Your task to perform on an android device: turn off airplane mode Image 0: 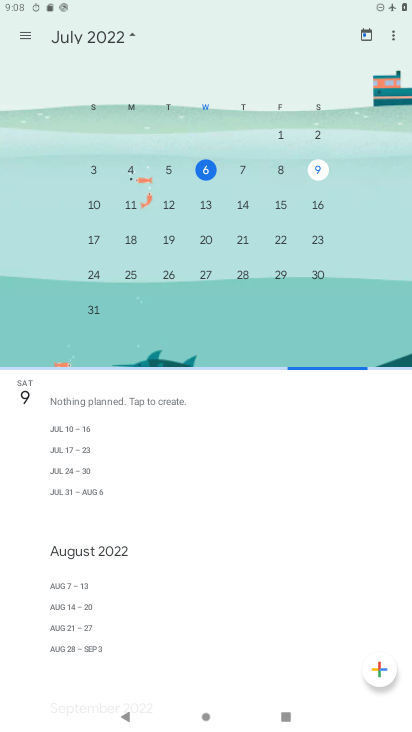
Step 0: press home button
Your task to perform on an android device: turn off airplane mode Image 1: 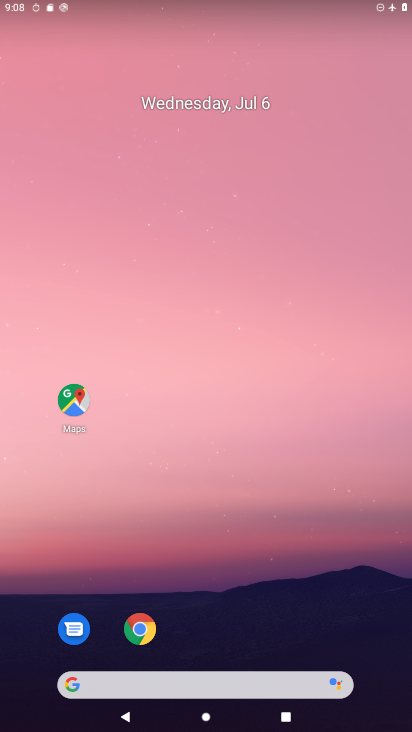
Step 1: drag from (232, 690) to (215, 122)
Your task to perform on an android device: turn off airplane mode Image 2: 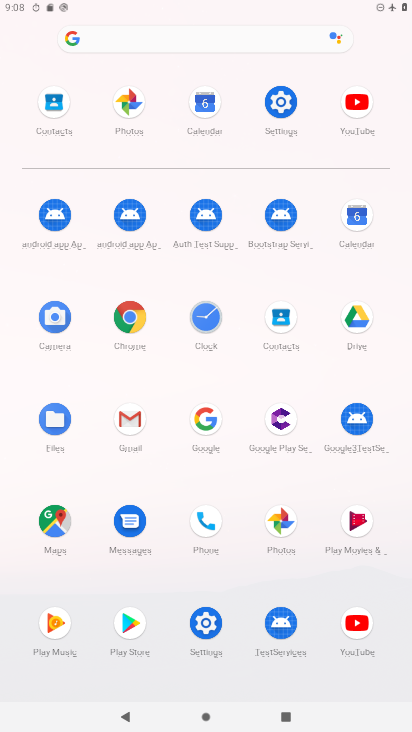
Step 2: click (281, 96)
Your task to perform on an android device: turn off airplane mode Image 3: 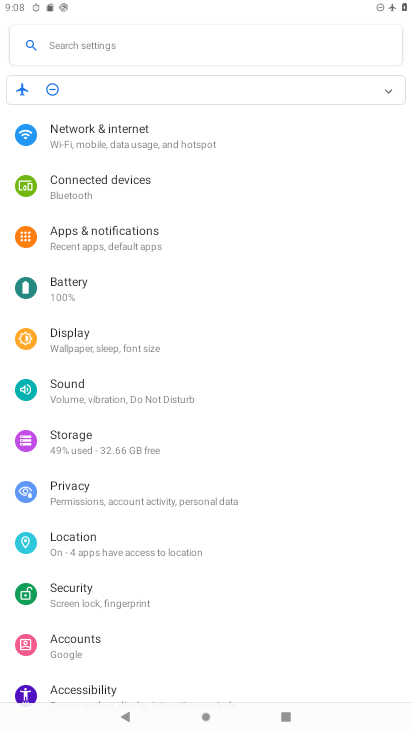
Step 3: click (97, 137)
Your task to perform on an android device: turn off airplane mode Image 4: 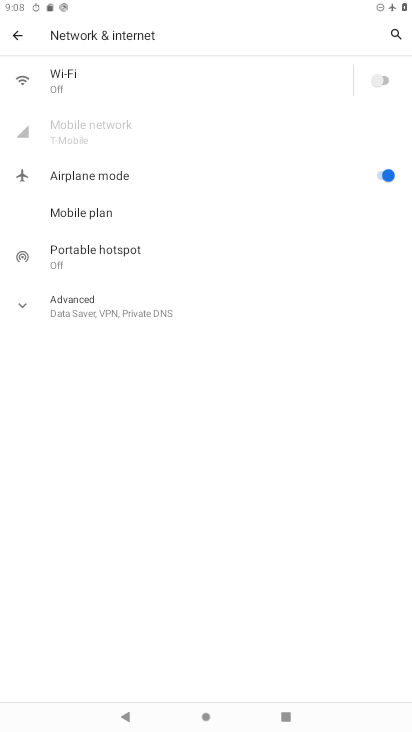
Step 4: click (384, 174)
Your task to perform on an android device: turn off airplane mode Image 5: 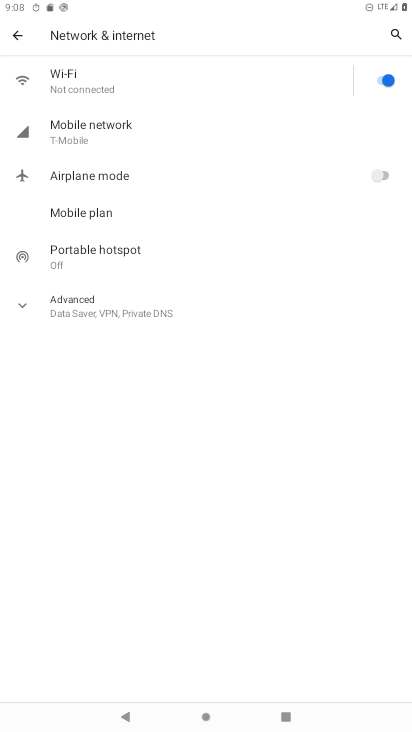
Step 5: task complete